Your task to perform on an android device: turn on the 12-hour format for clock Image 0: 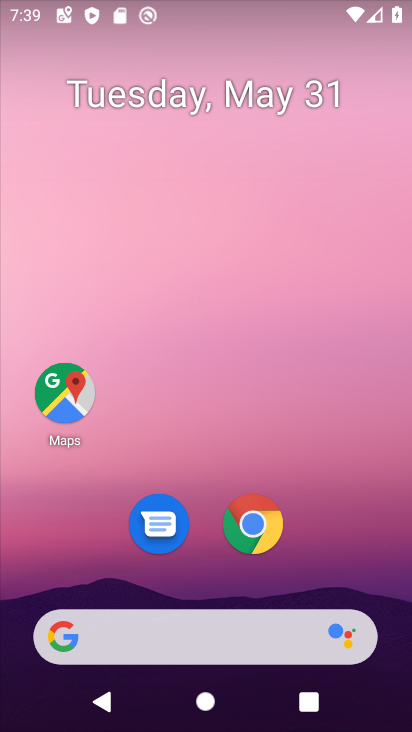
Step 0: click (191, 25)
Your task to perform on an android device: turn on the 12-hour format for clock Image 1: 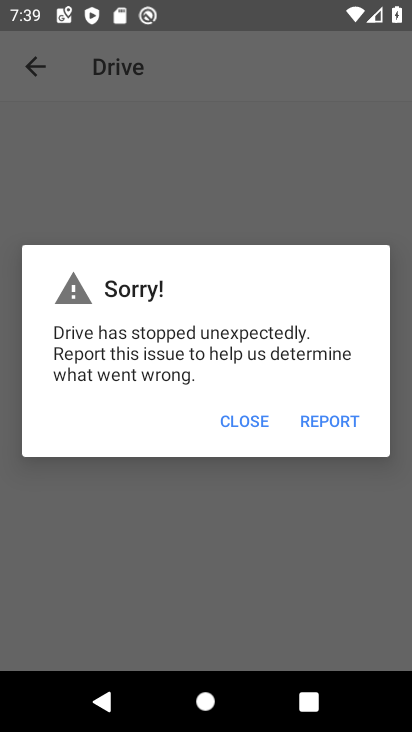
Step 1: press home button
Your task to perform on an android device: turn on the 12-hour format for clock Image 2: 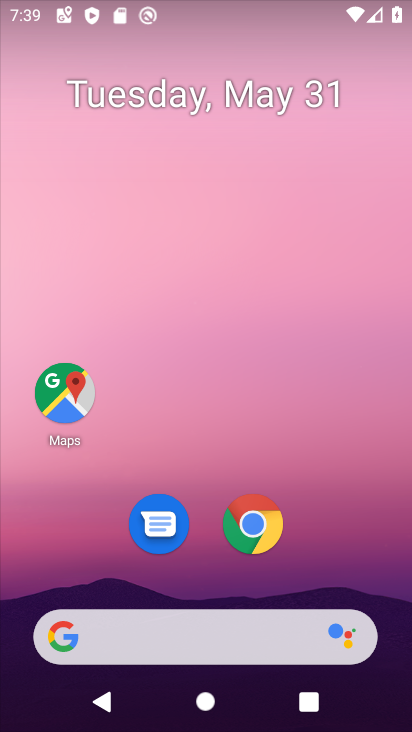
Step 2: drag from (347, 574) to (289, 31)
Your task to perform on an android device: turn on the 12-hour format for clock Image 3: 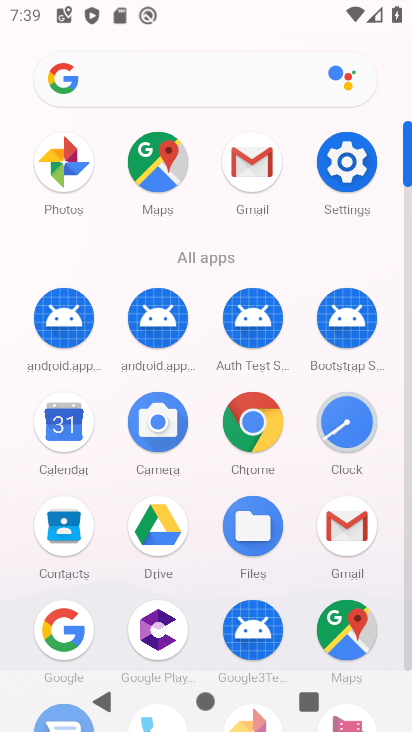
Step 3: click (345, 414)
Your task to perform on an android device: turn on the 12-hour format for clock Image 4: 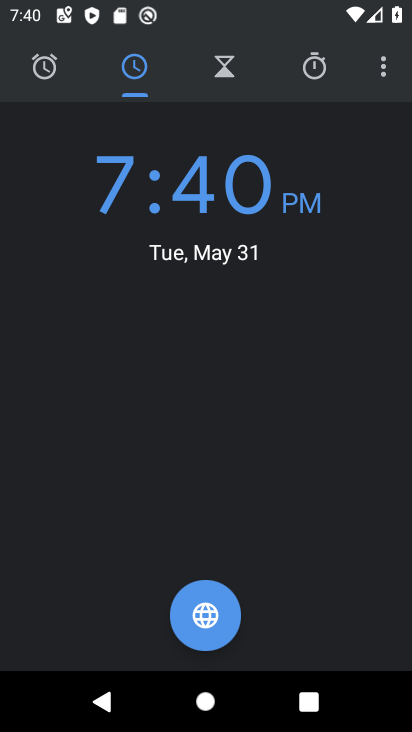
Step 4: click (382, 72)
Your task to perform on an android device: turn on the 12-hour format for clock Image 5: 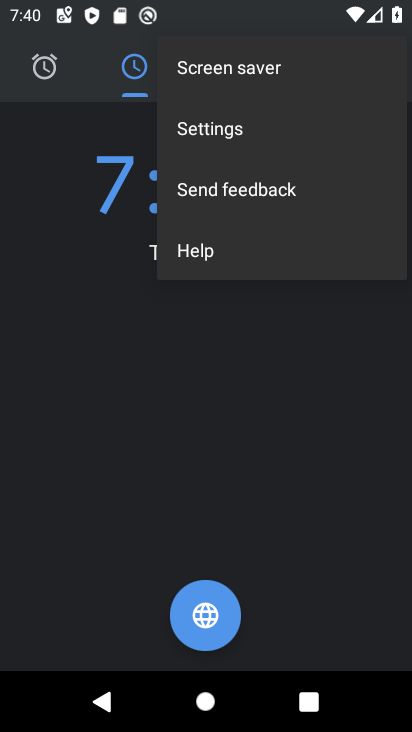
Step 5: click (309, 131)
Your task to perform on an android device: turn on the 12-hour format for clock Image 6: 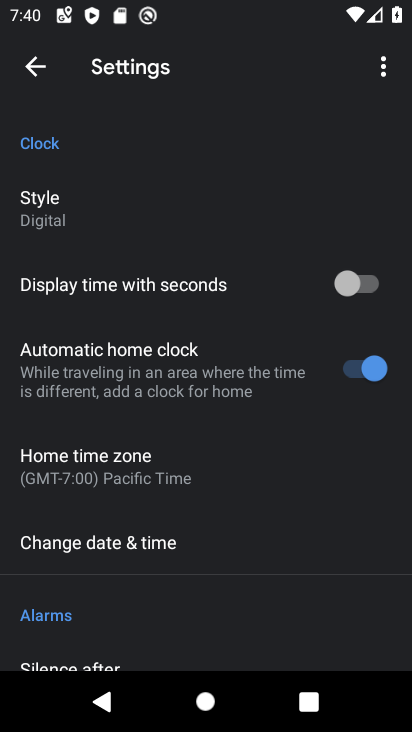
Step 6: drag from (248, 549) to (250, 416)
Your task to perform on an android device: turn on the 12-hour format for clock Image 7: 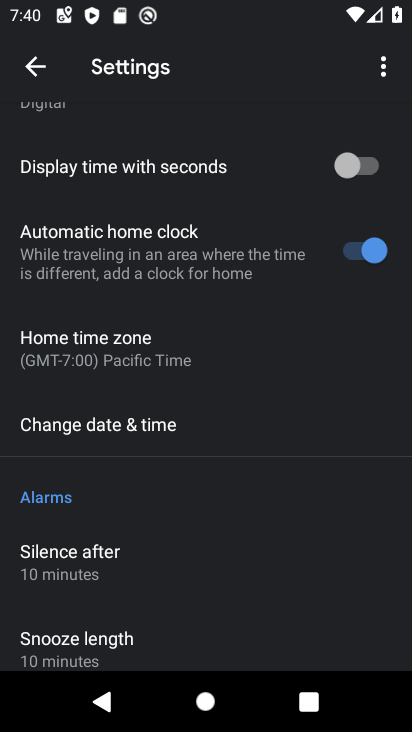
Step 7: click (250, 421)
Your task to perform on an android device: turn on the 12-hour format for clock Image 8: 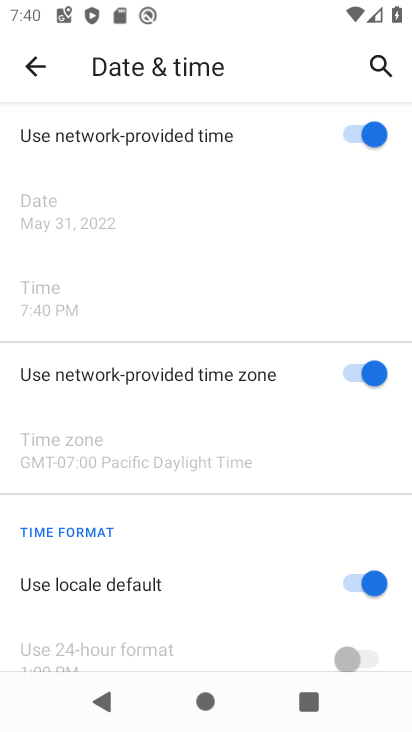
Step 8: task complete